Your task to perform on an android device: Open Maps and search for coffee Image 0: 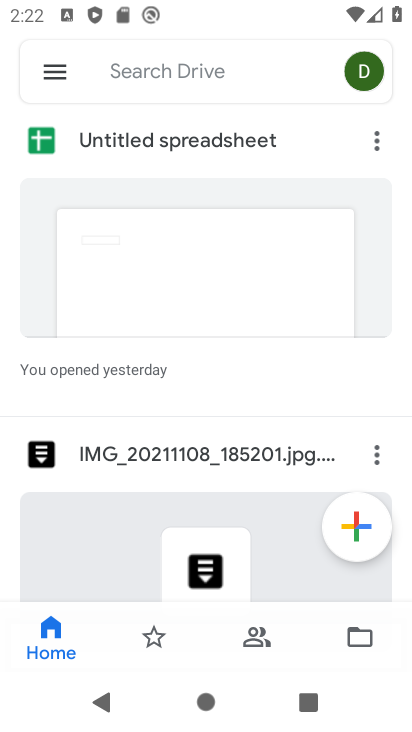
Step 0: press home button
Your task to perform on an android device: Open Maps and search for coffee Image 1: 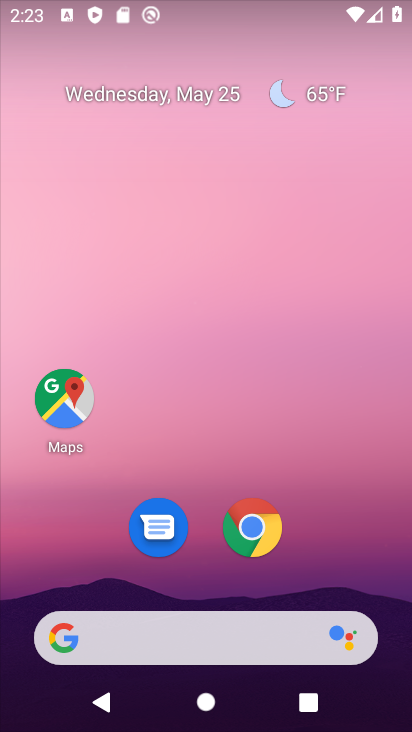
Step 1: drag from (229, 84) to (236, 11)
Your task to perform on an android device: Open Maps and search for coffee Image 2: 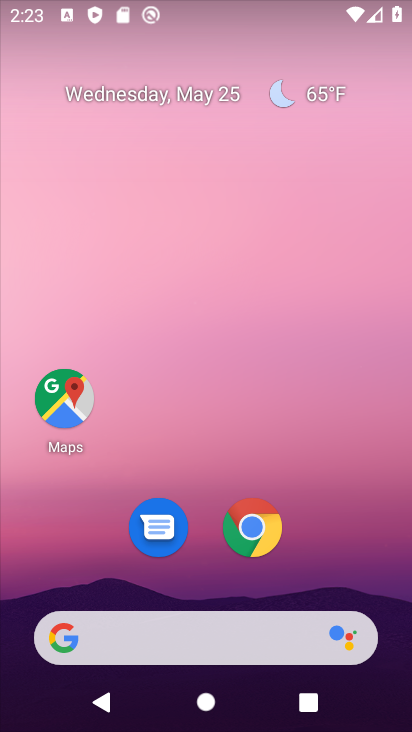
Step 2: drag from (293, 582) to (343, 98)
Your task to perform on an android device: Open Maps and search for coffee Image 3: 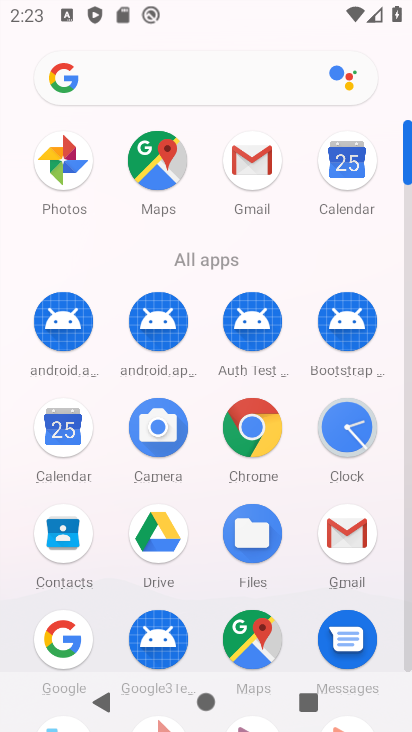
Step 3: click (260, 624)
Your task to perform on an android device: Open Maps and search for coffee Image 4: 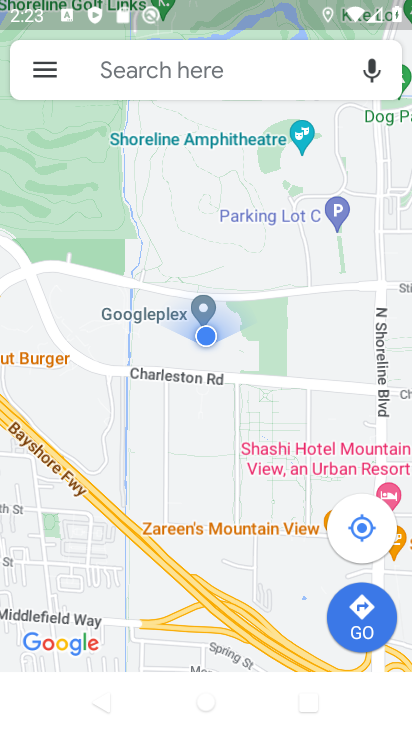
Step 4: click (157, 72)
Your task to perform on an android device: Open Maps and search for coffee Image 5: 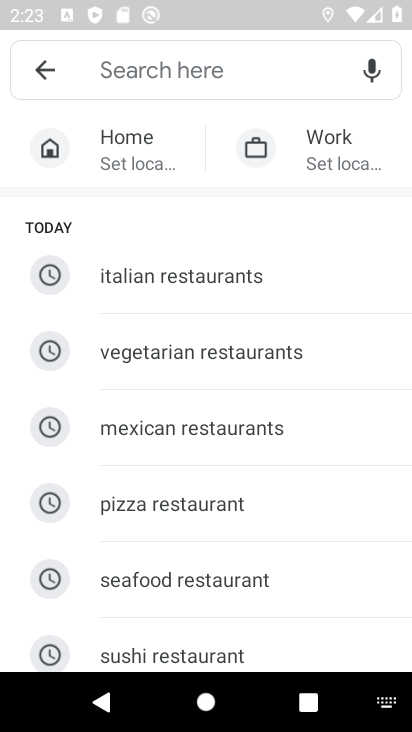
Step 5: type "coffee"
Your task to perform on an android device: Open Maps and search for coffee Image 6: 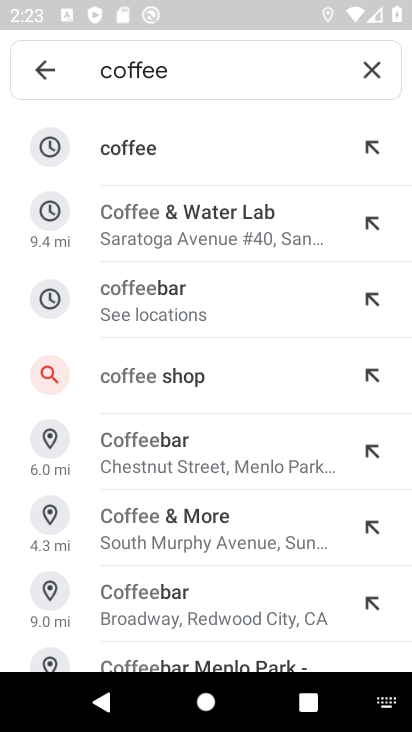
Step 6: click (190, 163)
Your task to perform on an android device: Open Maps and search for coffee Image 7: 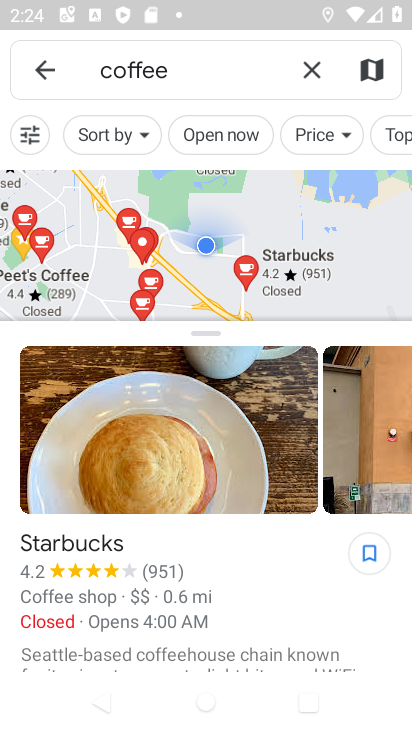
Step 7: task complete